Your task to perform on an android device: Search for pizza restaurants on Maps Image 0: 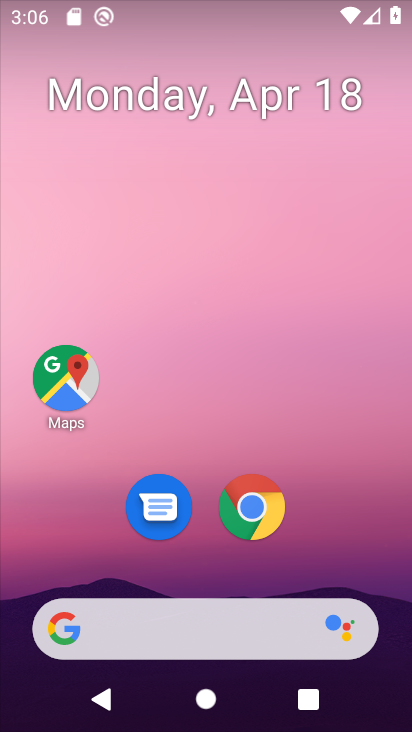
Step 0: click (69, 361)
Your task to perform on an android device: Search for pizza restaurants on Maps Image 1: 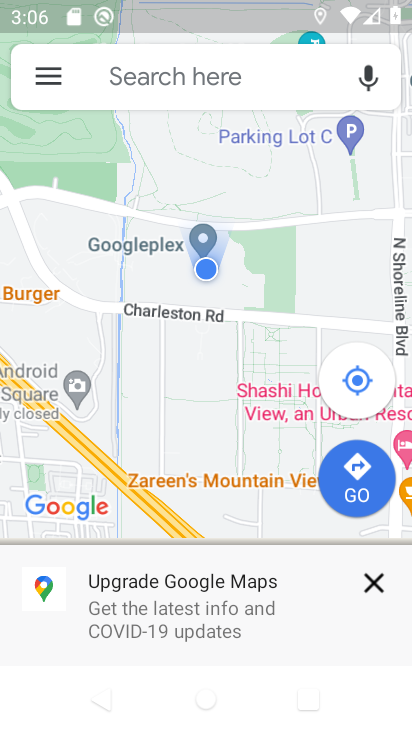
Step 1: click (202, 87)
Your task to perform on an android device: Search for pizza restaurants on Maps Image 2: 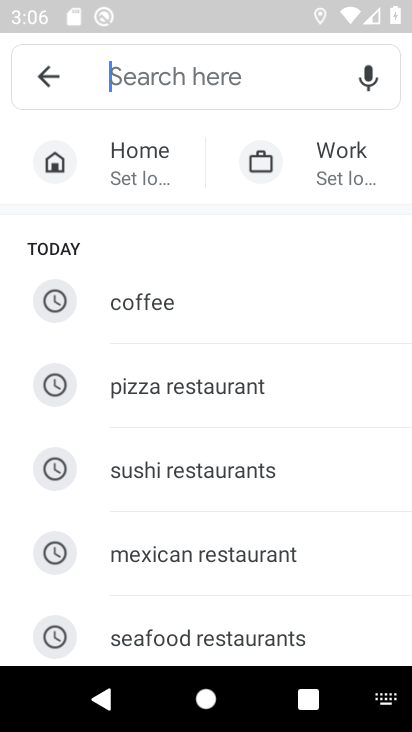
Step 2: type "pizza restaurants"
Your task to perform on an android device: Search for pizza restaurants on Maps Image 3: 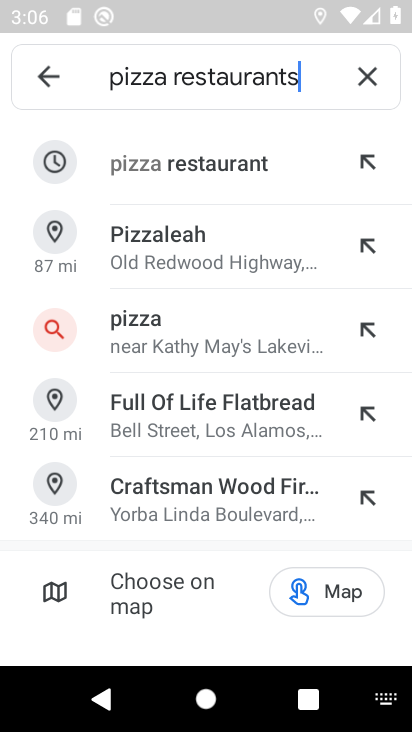
Step 3: click (159, 157)
Your task to perform on an android device: Search for pizza restaurants on Maps Image 4: 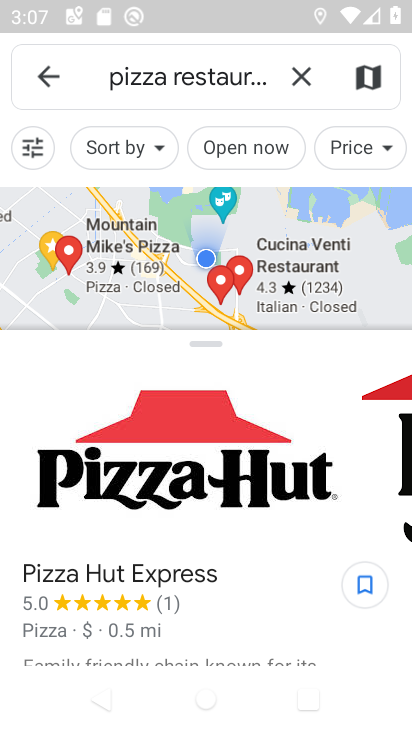
Step 4: task complete